Your task to perform on an android device: toggle notification dots Image 0: 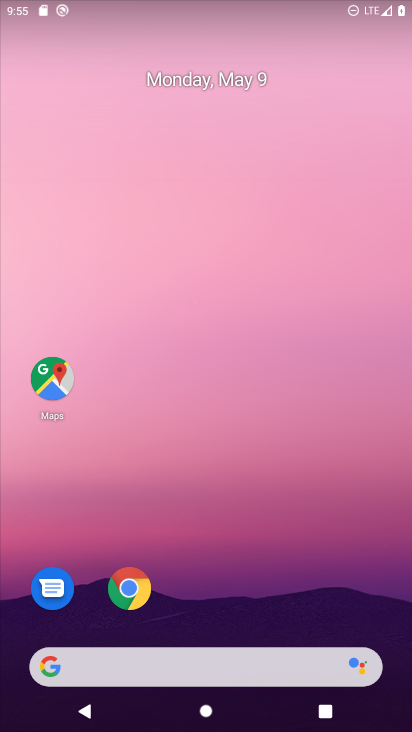
Step 0: drag from (263, 590) to (248, 151)
Your task to perform on an android device: toggle notification dots Image 1: 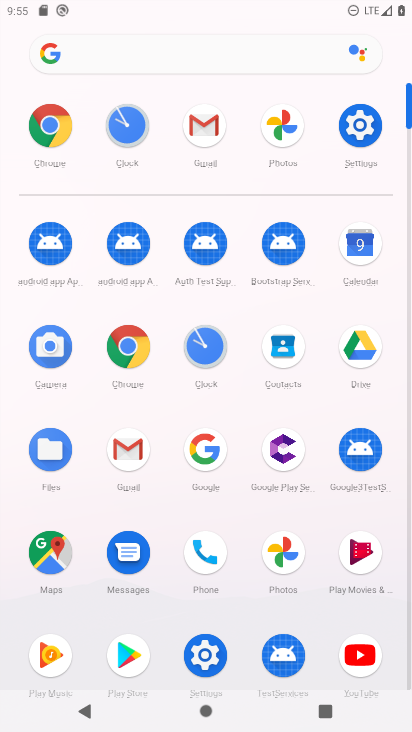
Step 1: click (201, 646)
Your task to perform on an android device: toggle notification dots Image 2: 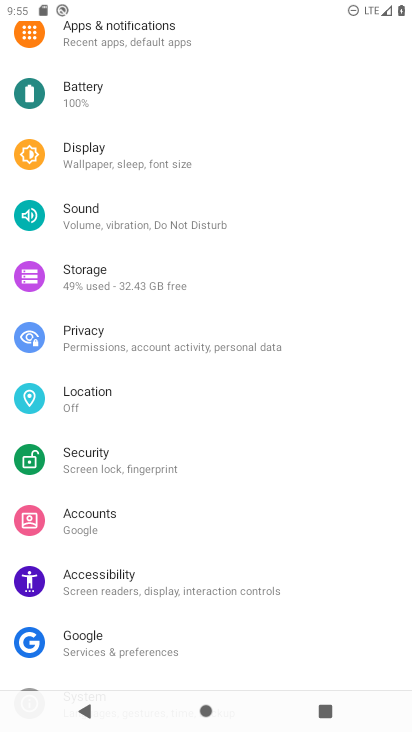
Step 2: drag from (199, 347) to (246, 554)
Your task to perform on an android device: toggle notification dots Image 3: 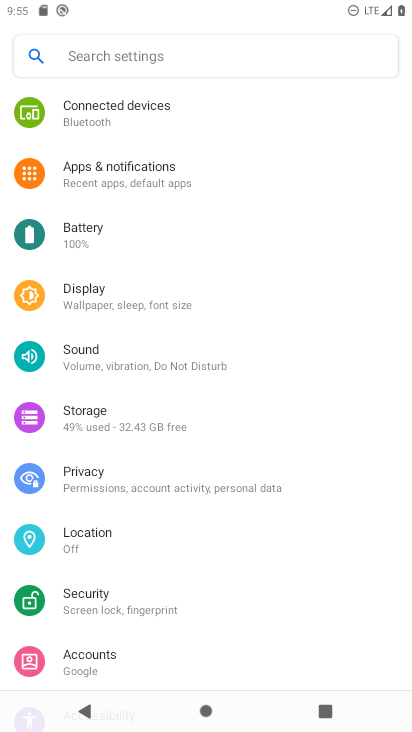
Step 3: click (217, 198)
Your task to perform on an android device: toggle notification dots Image 4: 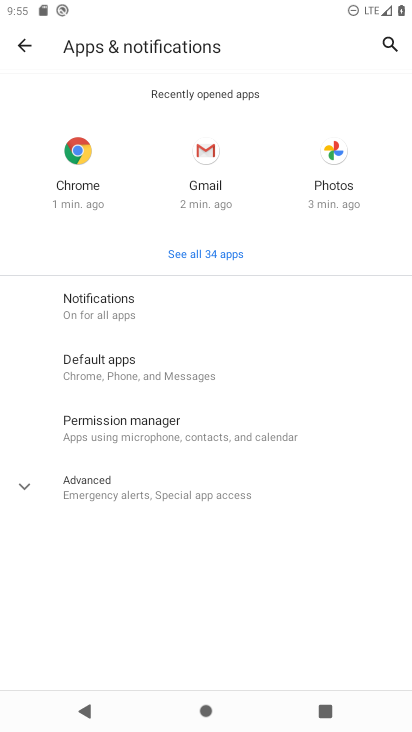
Step 4: click (233, 307)
Your task to perform on an android device: toggle notification dots Image 5: 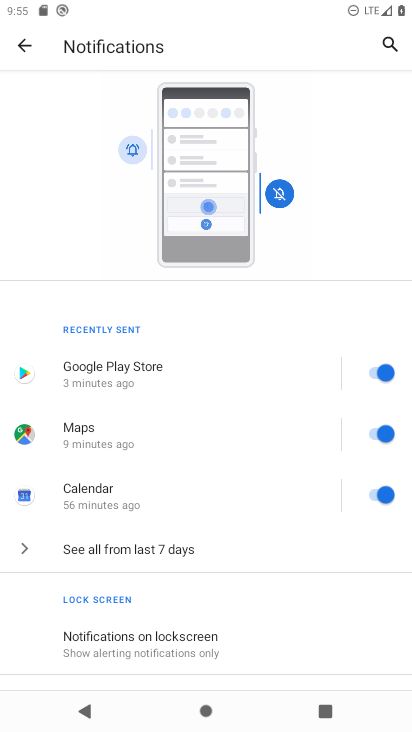
Step 5: task complete